Your task to perform on an android device: Open network settings Image 0: 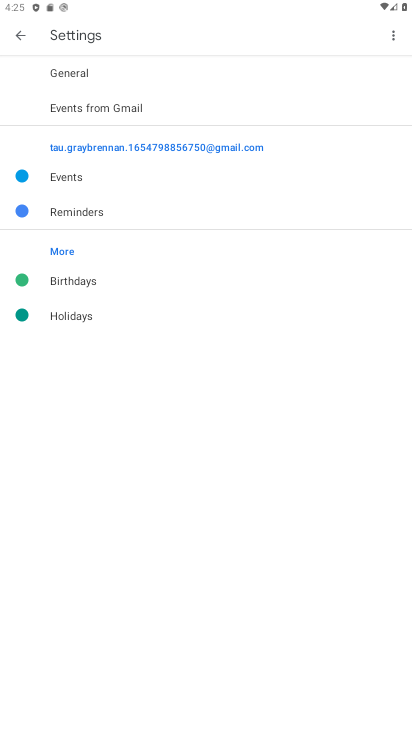
Step 0: press home button
Your task to perform on an android device: Open network settings Image 1: 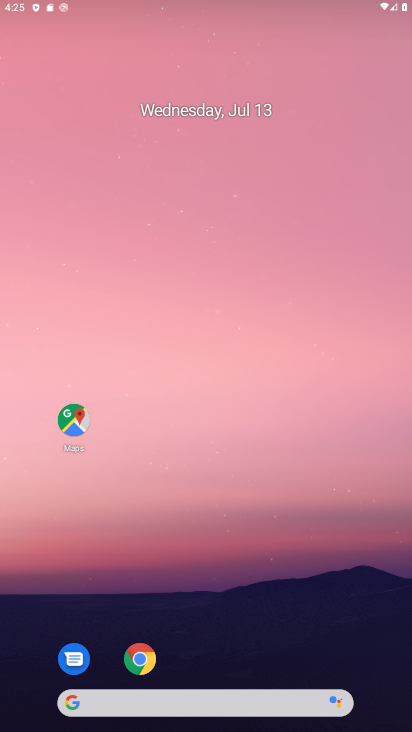
Step 1: drag from (290, 594) to (249, 0)
Your task to perform on an android device: Open network settings Image 2: 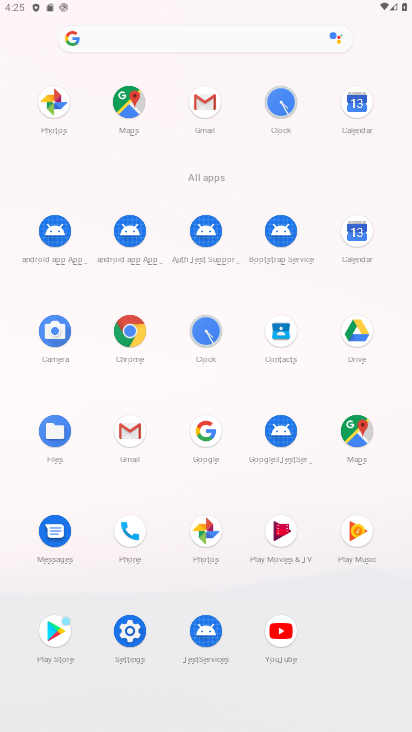
Step 2: click (123, 631)
Your task to perform on an android device: Open network settings Image 3: 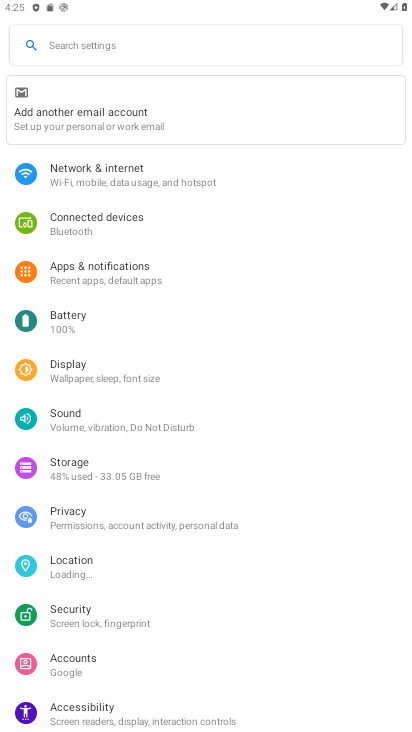
Step 3: click (106, 181)
Your task to perform on an android device: Open network settings Image 4: 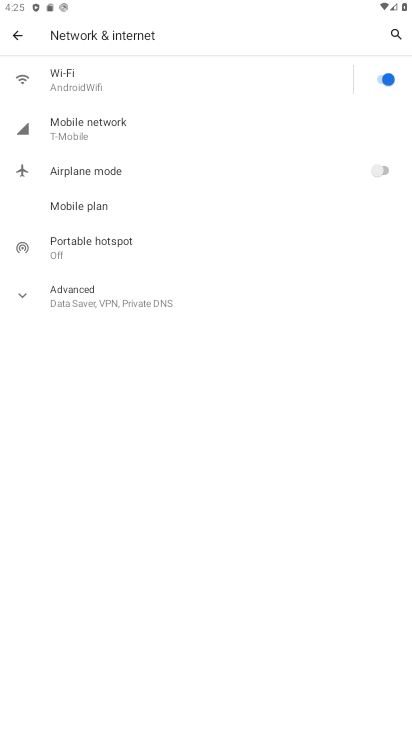
Step 4: task complete